Your task to perform on an android device: Go to eBay Image 0: 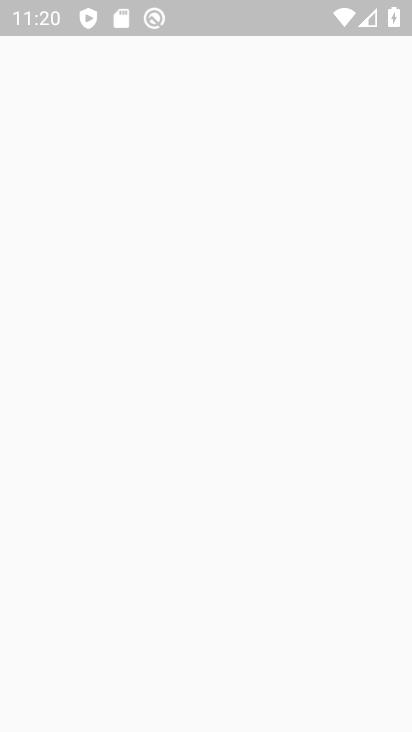
Step 0: drag from (24, 281) to (408, 490)
Your task to perform on an android device: Go to eBay Image 1: 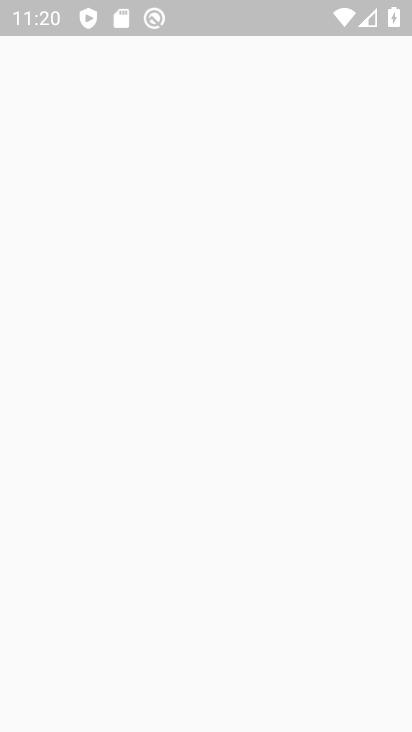
Step 1: press home button
Your task to perform on an android device: Go to eBay Image 2: 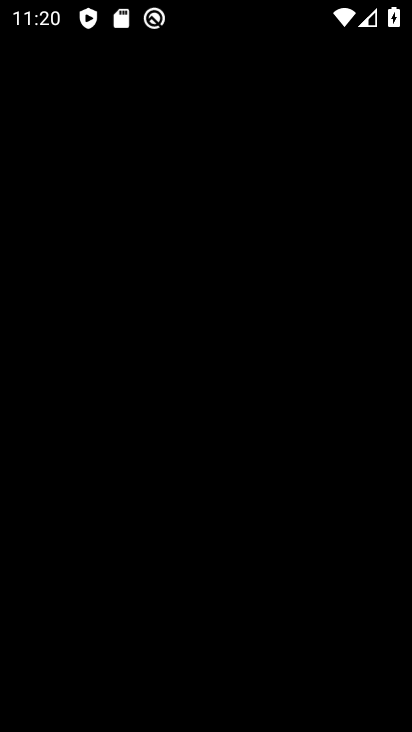
Step 2: press home button
Your task to perform on an android device: Go to eBay Image 3: 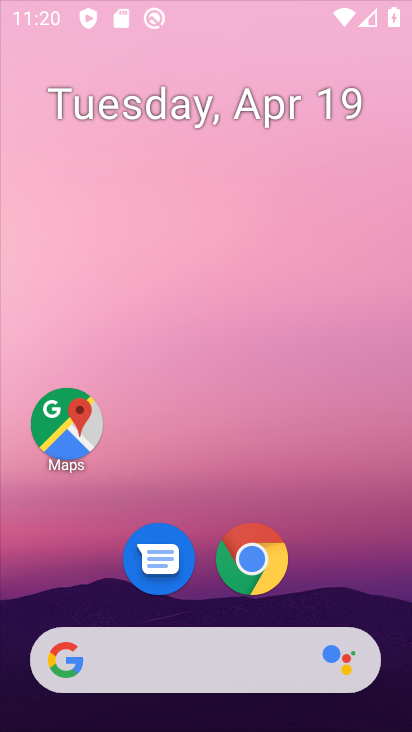
Step 3: press home button
Your task to perform on an android device: Go to eBay Image 4: 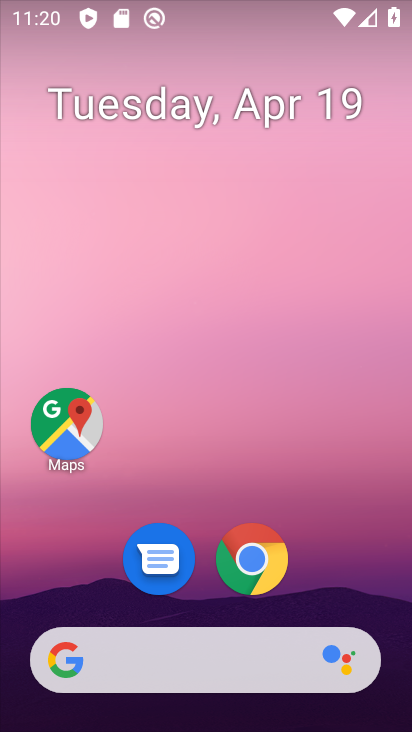
Step 4: drag from (31, 263) to (366, 301)
Your task to perform on an android device: Go to eBay Image 5: 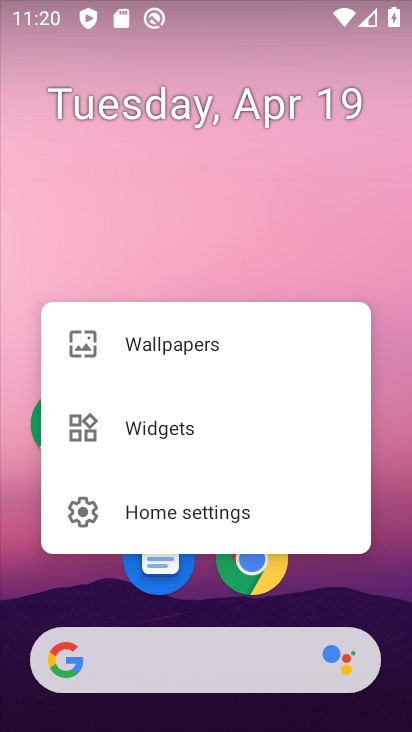
Step 5: drag from (10, 217) to (398, 468)
Your task to perform on an android device: Go to eBay Image 6: 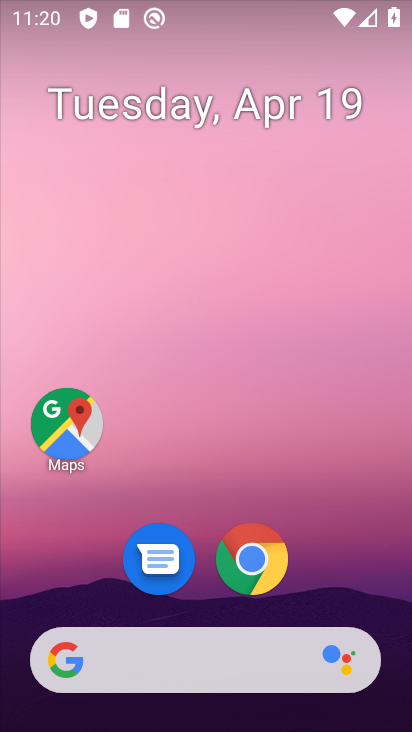
Step 6: click (231, 228)
Your task to perform on an android device: Go to eBay Image 7: 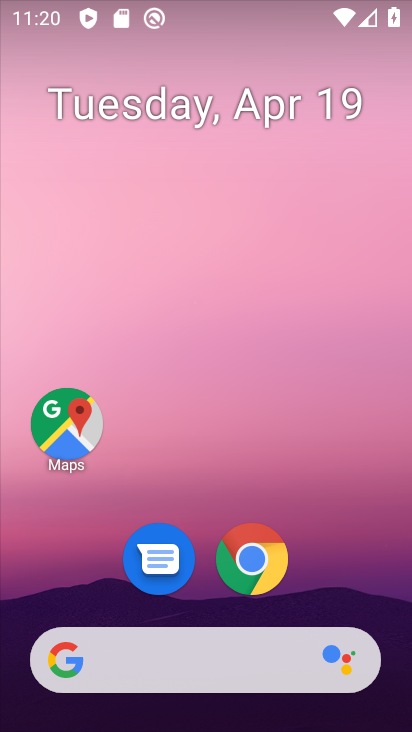
Step 7: drag from (332, 254) to (296, 434)
Your task to perform on an android device: Go to eBay Image 8: 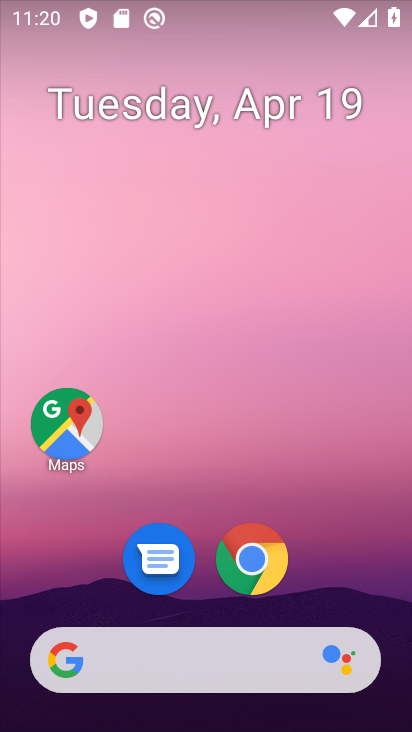
Step 8: drag from (16, 227) to (213, 401)
Your task to perform on an android device: Go to eBay Image 9: 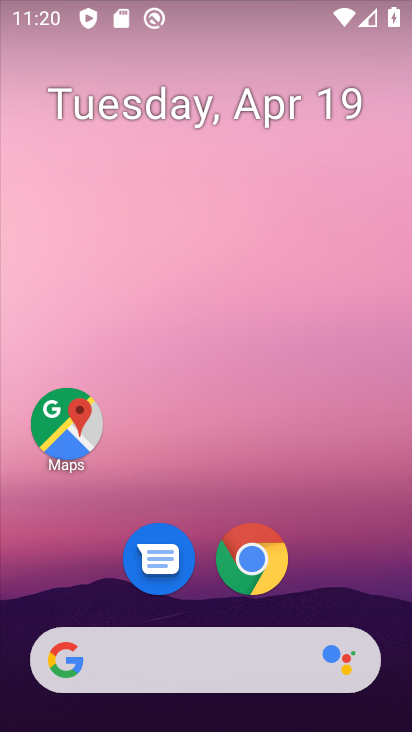
Step 9: drag from (37, 250) to (385, 356)
Your task to perform on an android device: Go to eBay Image 10: 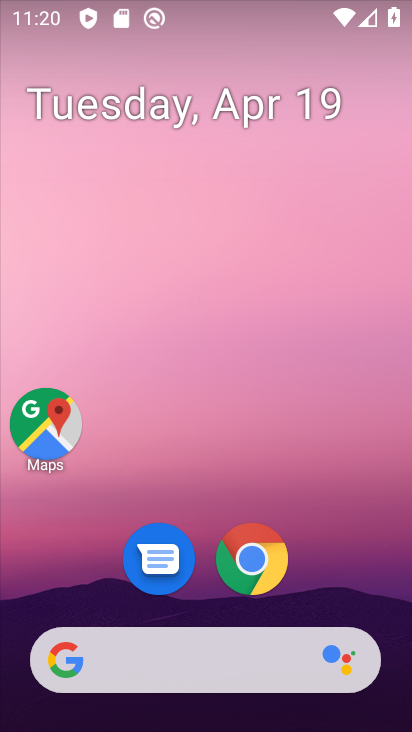
Step 10: click (357, 312)
Your task to perform on an android device: Go to eBay Image 11: 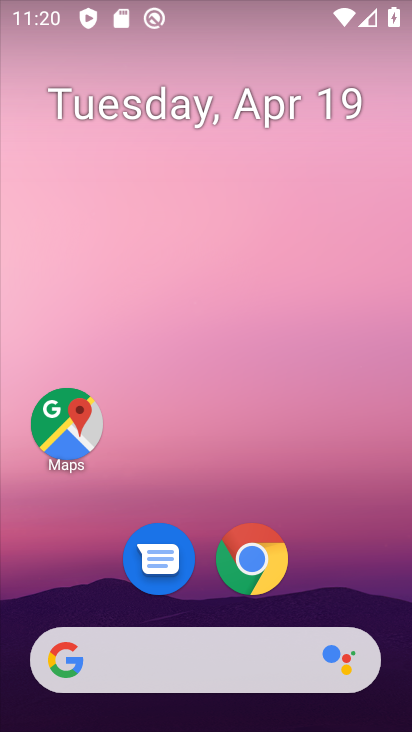
Step 11: click (389, 307)
Your task to perform on an android device: Go to eBay Image 12: 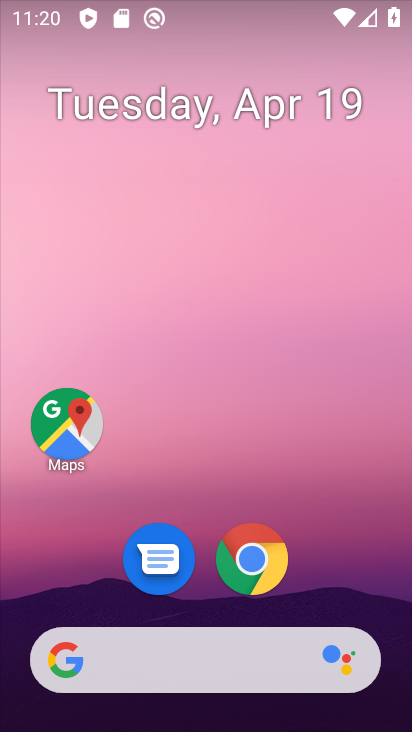
Step 12: click (260, 262)
Your task to perform on an android device: Go to eBay Image 13: 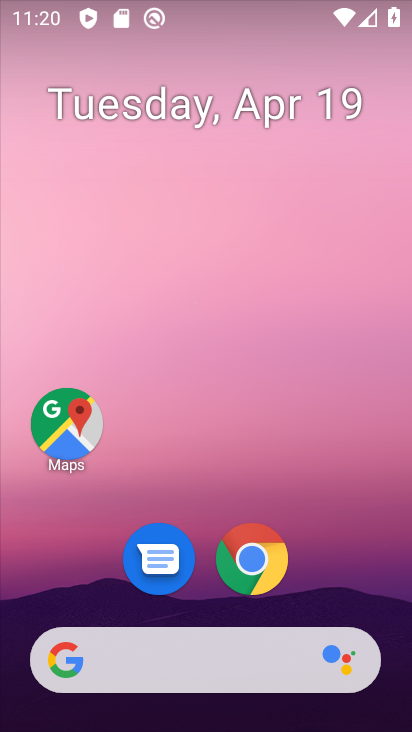
Step 13: click (399, 352)
Your task to perform on an android device: Go to eBay Image 14: 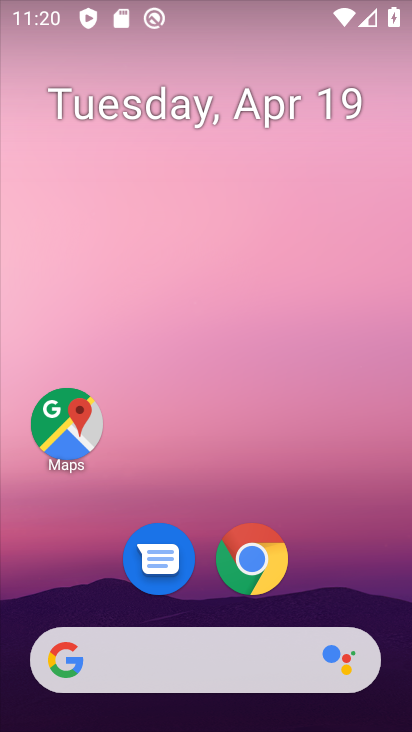
Step 14: click (397, 337)
Your task to perform on an android device: Go to eBay Image 15: 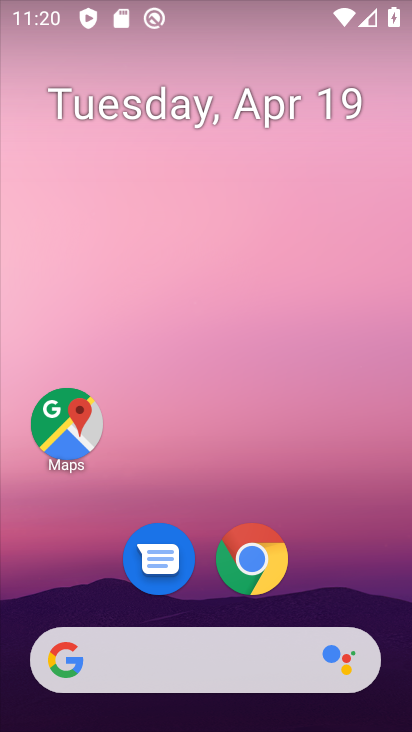
Step 15: click (371, 339)
Your task to perform on an android device: Go to eBay Image 16: 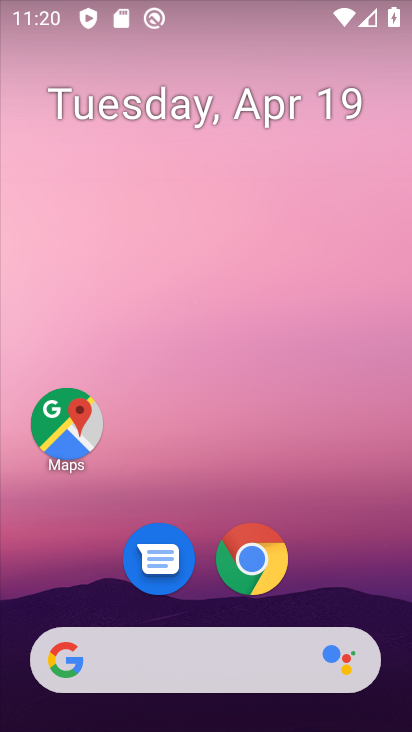
Step 16: drag from (239, 245) to (315, 355)
Your task to perform on an android device: Go to eBay Image 17: 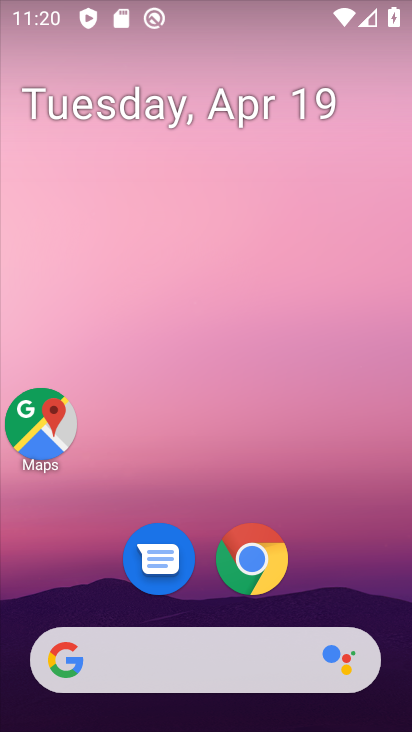
Step 17: drag from (396, 326) to (124, 107)
Your task to perform on an android device: Go to eBay Image 18: 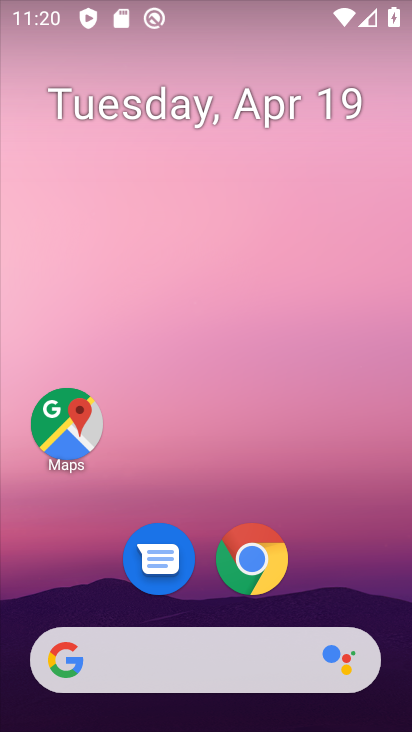
Step 18: click (253, 546)
Your task to perform on an android device: Go to eBay Image 19: 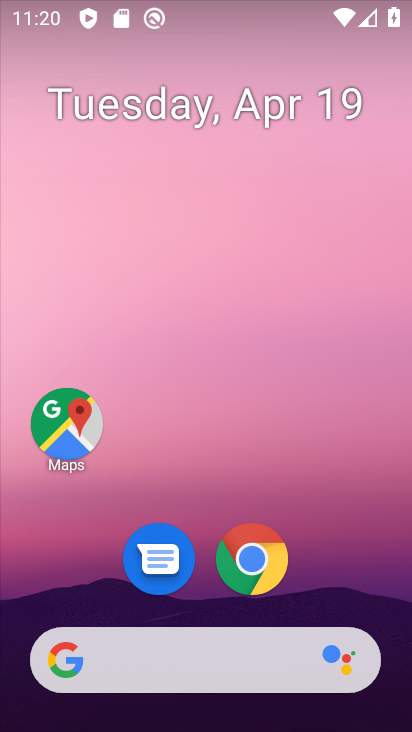
Step 19: click (247, 541)
Your task to perform on an android device: Go to eBay Image 20: 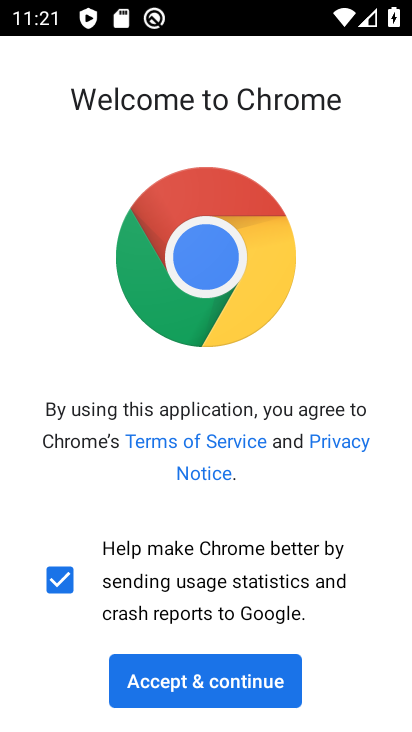
Step 20: click (222, 682)
Your task to perform on an android device: Go to eBay Image 21: 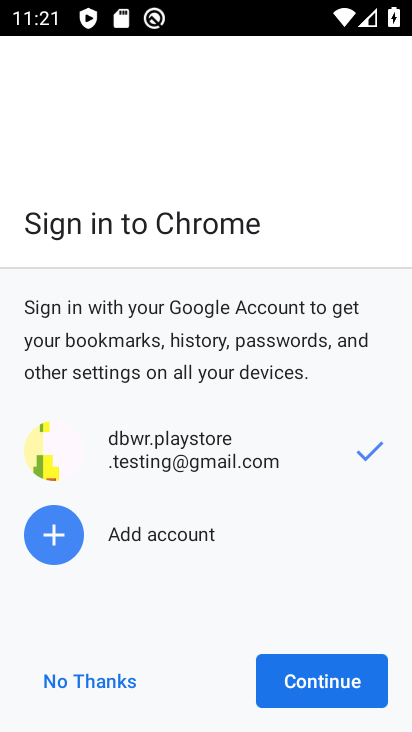
Step 21: click (324, 678)
Your task to perform on an android device: Go to eBay Image 22: 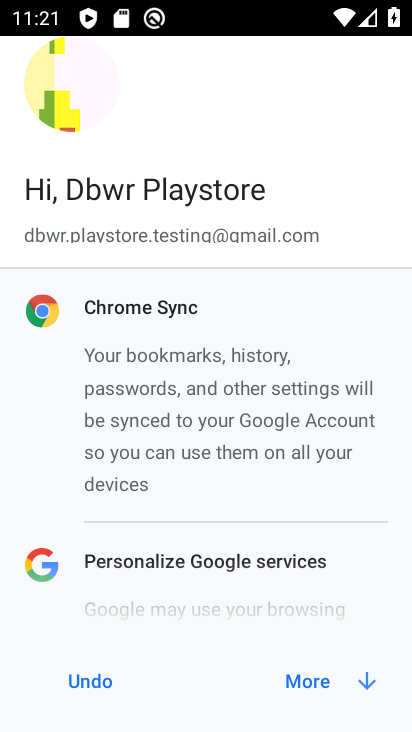
Step 22: click (315, 682)
Your task to perform on an android device: Go to eBay Image 23: 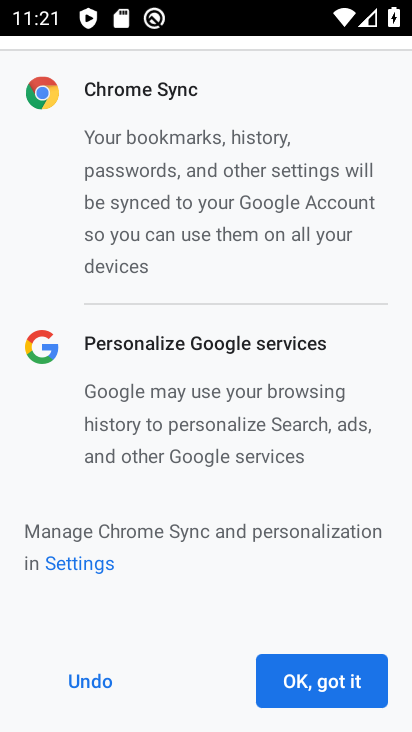
Step 23: click (315, 682)
Your task to perform on an android device: Go to eBay Image 24: 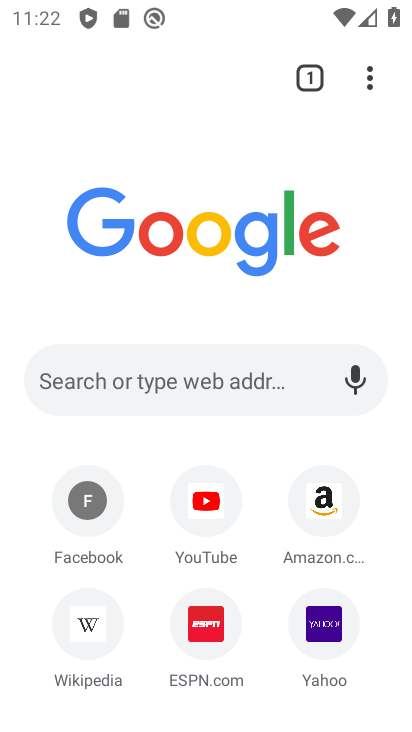
Step 24: click (114, 374)
Your task to perform on an android device: Go to eBay Image 25: 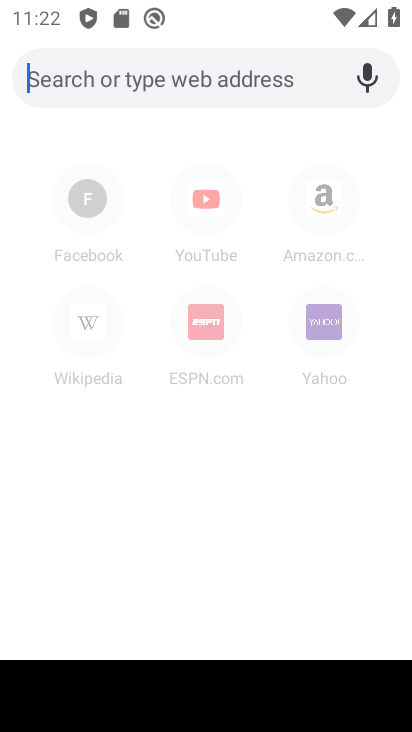
Step 25: type "www.ebay.com"
Your task to perform on an android device: Go to eBay Image 26: 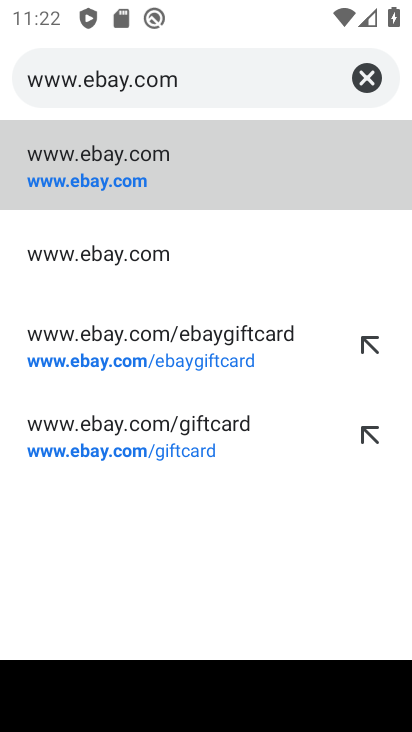
Step 26: click (94, 177)
Your task to perform on an android device: Go to eBay Image 27: 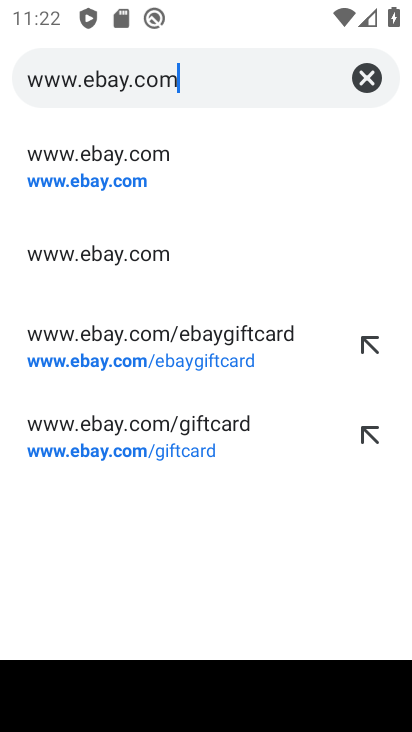
Step 27: click (94, 177)
Your task to perform on an android device: Go to eBay Image 28: 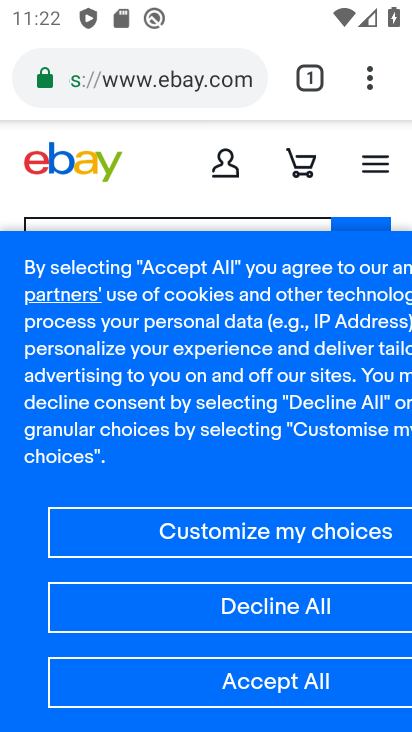
Step 28: task complete